Your task to perform on an android device: Go to eBay Image 0: 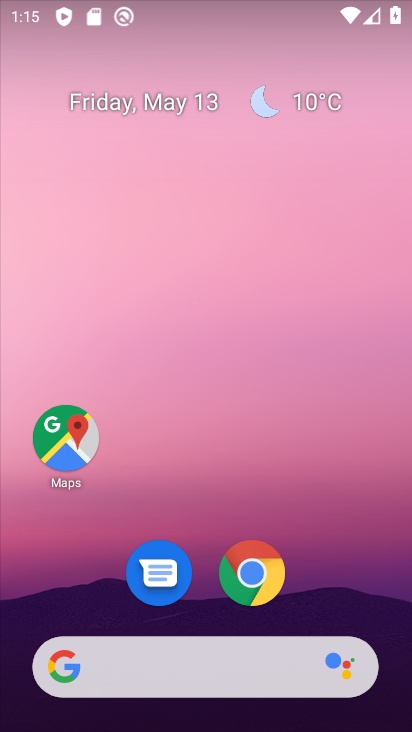
Step 0: click (253, 566)
Your task to perform on an android device: Go to eBay Image 1: 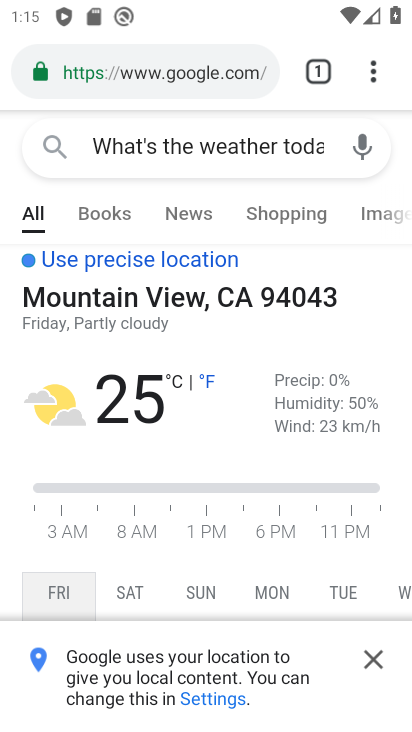
Step 1: click (183, 65)
Your task to perform on an android device: Go to eBay Image 2: 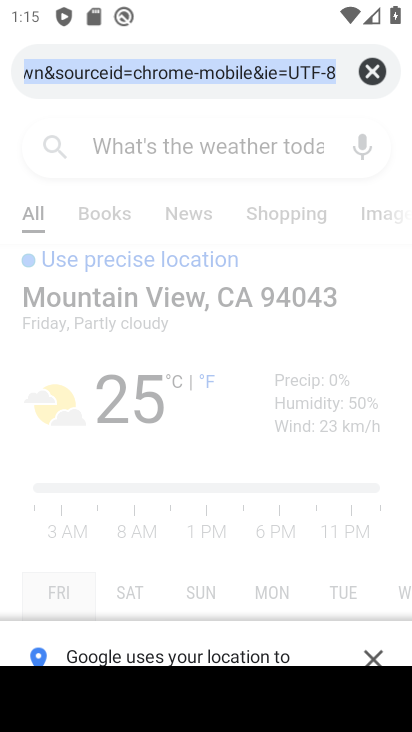
Step 2: click (372, 74)
Your task to perform on an android device: Go to eBay Image 3: 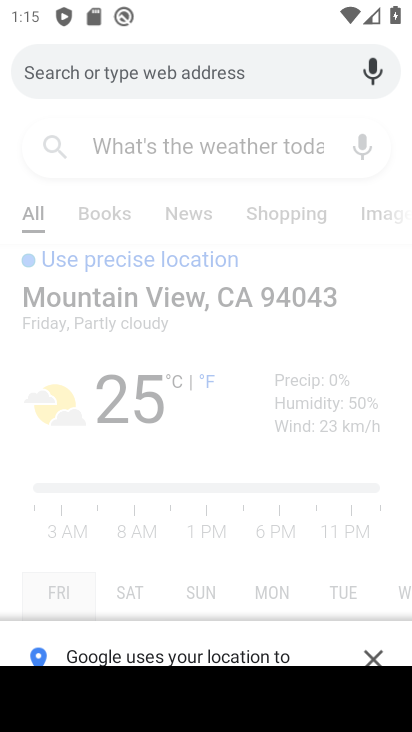
Step 3: type "eBay"
Your task to perform on an android device: Go to eBay Image 4: 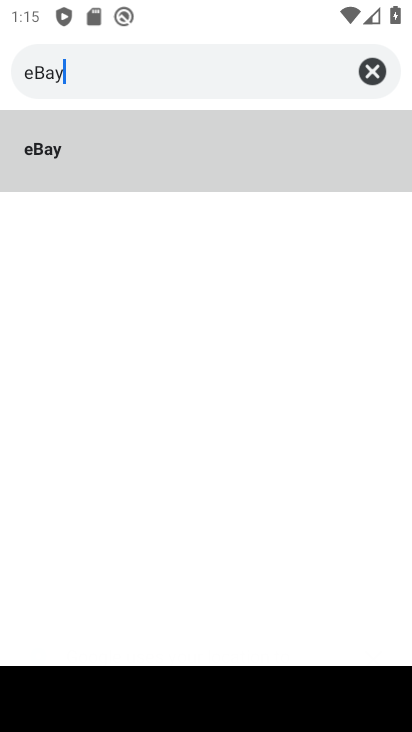
Step 4: type ""
Your task to perform on an android device: Go to eBay Image 5: 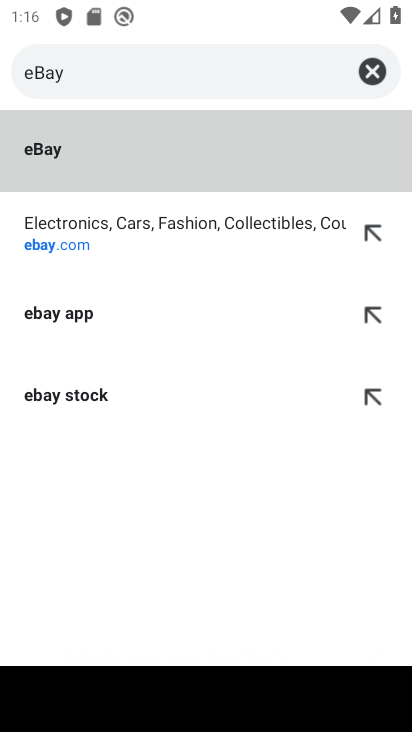
Step 5: click (114, 218)
Your task to perform on an android device: Go to eBay Image 6: 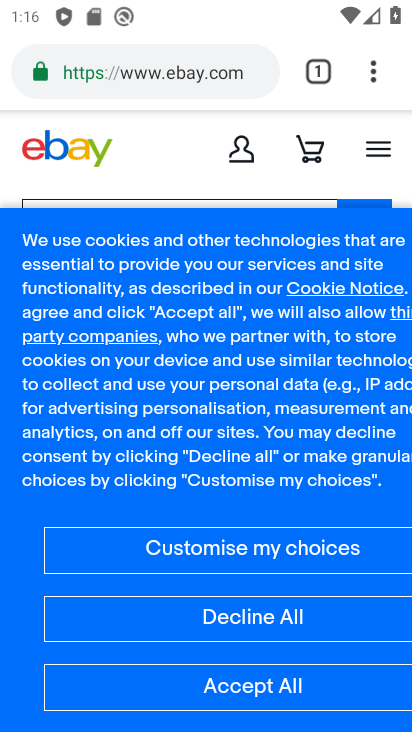
Step 6: click (218, 695)
Your task to perform on an android device: Go to eBay Image 7: 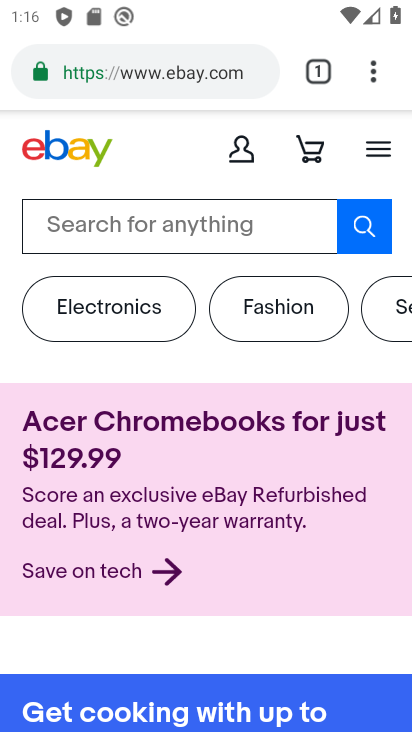
Step 7: task complete